Your task to perform on an android device: Search for "logitech g903" on ebay, select the first entry, and add it to the cart. Image 0: 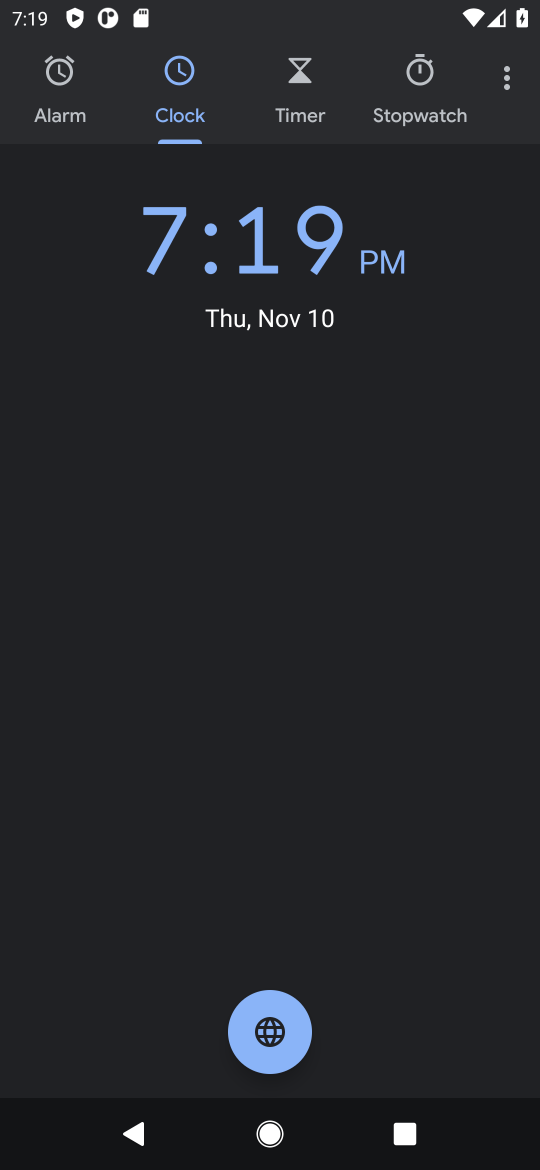
Step 0: press home button
Your task to perform on an android device: Search for "logitech g903" on ebay, select the first entry, and add it to the cart. Image 1: 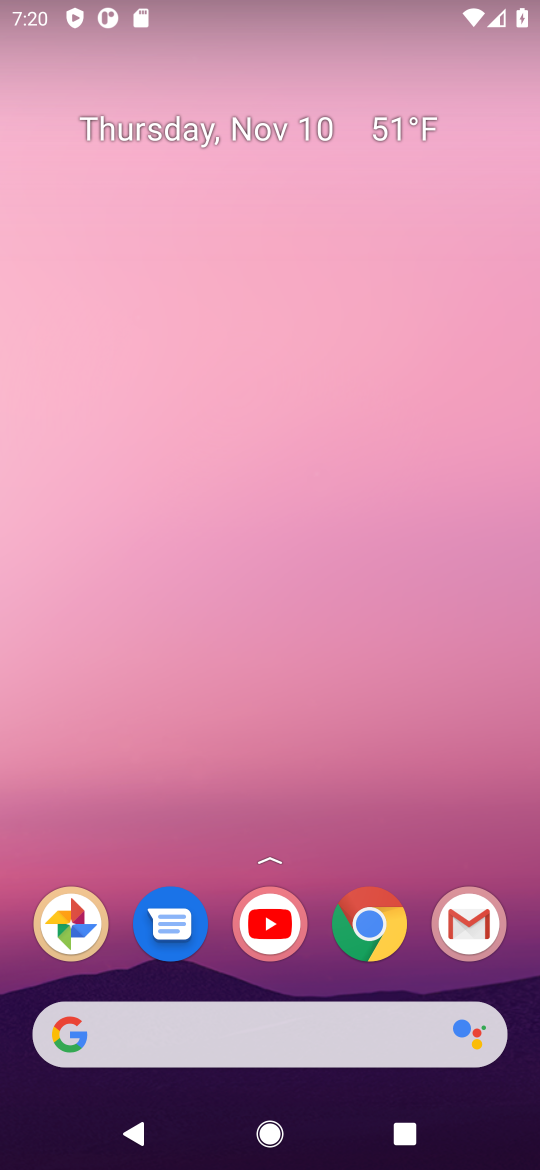
Step 1: click (380, 926)
Your task to perform on an android device: Search for "logitech g903" on ebay, select the first entry, and add it to the cart. Image 2: 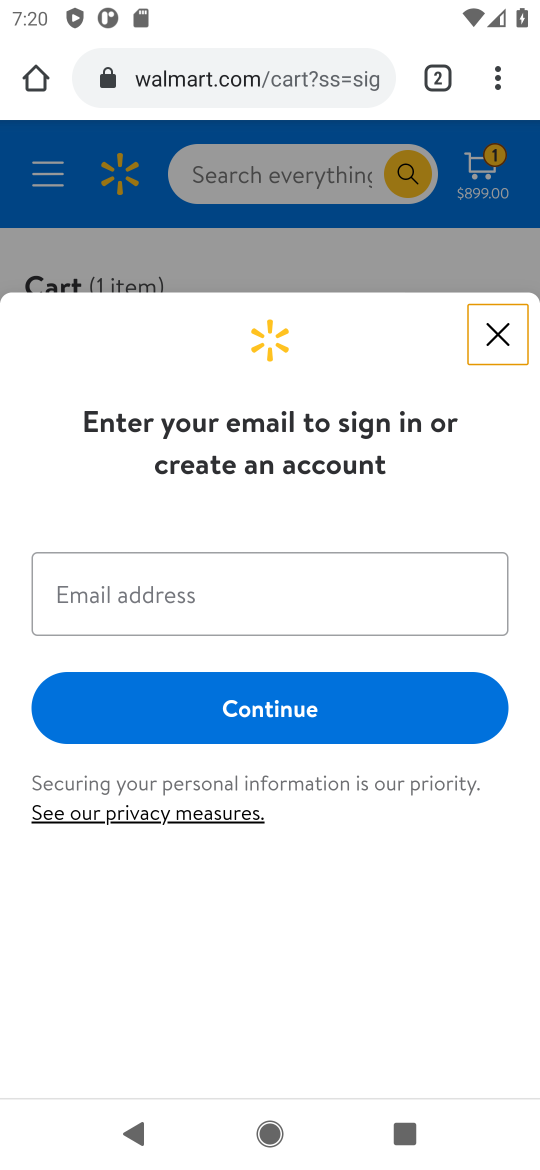
Step 2: click (187, 83)
Your task to perform on an android device: Search for "logitech g903" on ebay, select the first entry, and add it to the cart. Image 3: 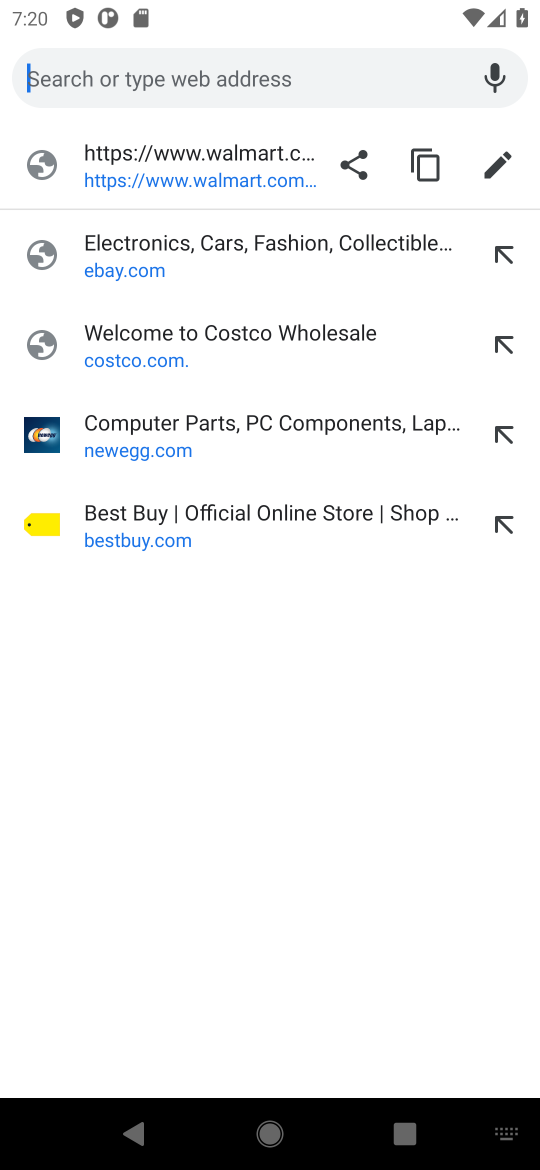
Step 3: click (131, 260)
Your task to perform on an android device: Search for "logitech g903" on ebay, select the first entry, and add it to the cart. Image 4: 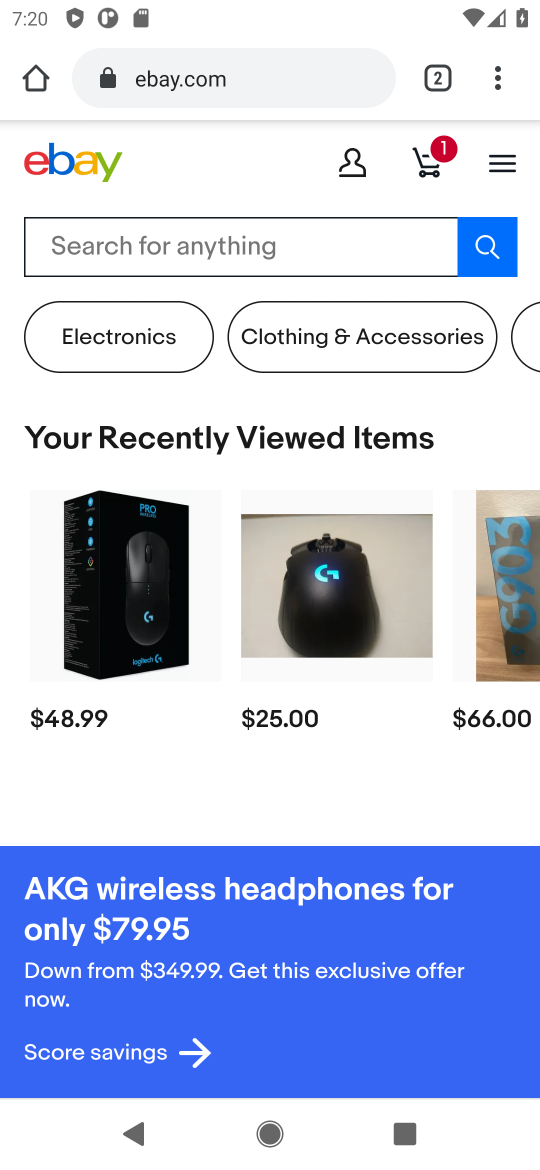
Step 4: click (61, 251)
Your task to perform on an android device: Search for "logitech g903" on ebay, select the first entry, and add it to the cart. Image 5: 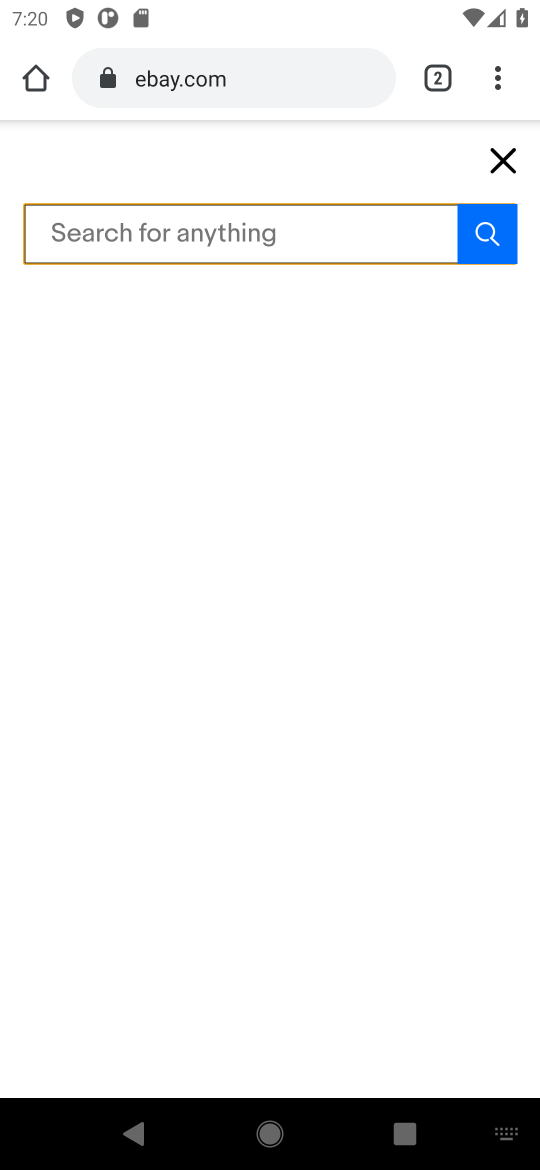
Step 5: type "logitech g903"
Your task to perform on an android device: Search for "logitech g903" on ebay, select the first entry, and add it to the cart. Image 6: 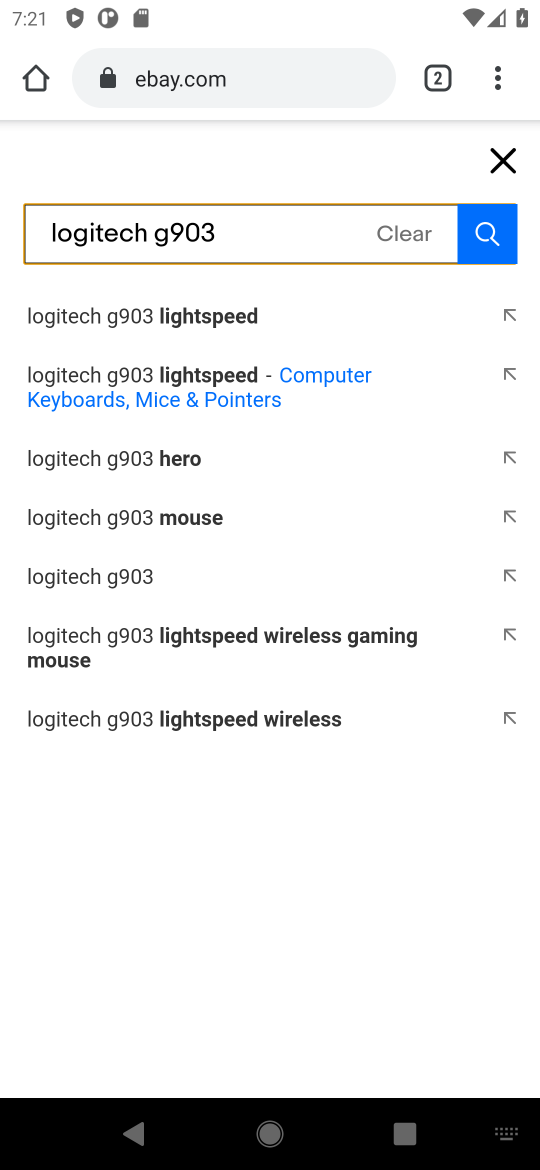
Step 6: click (92, 584)
Your task to perform on an android device: Search for "logitech g903" on ebay, select the first entry, and add it to the cart. Image 7: 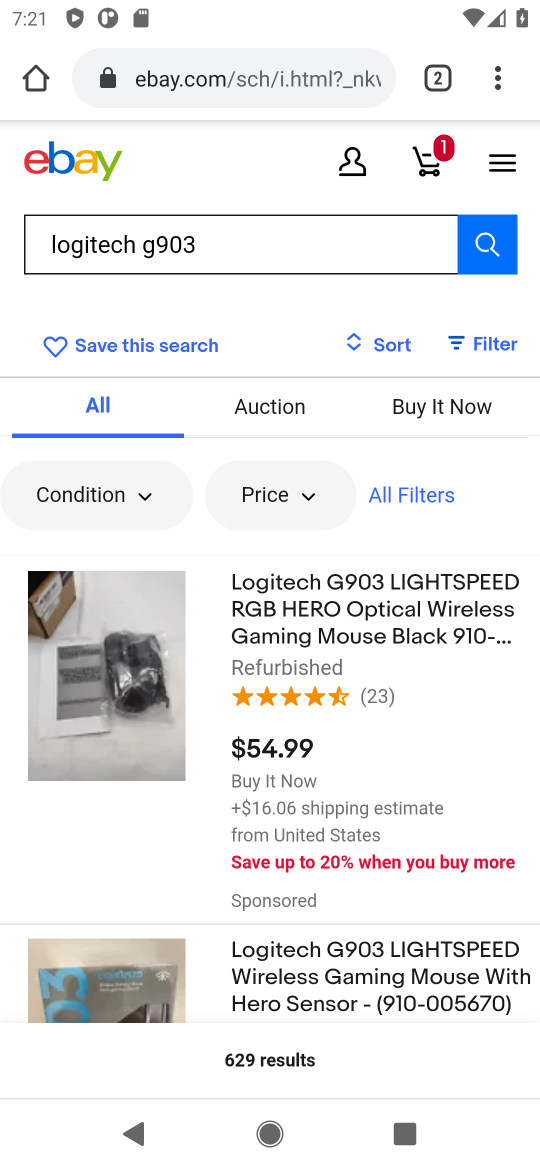
Step 7: click (119, 736)
Your task to perform on an android device: Search for "logitech g903" on ebay, select the first entry, and add it to the cart. Image 8: 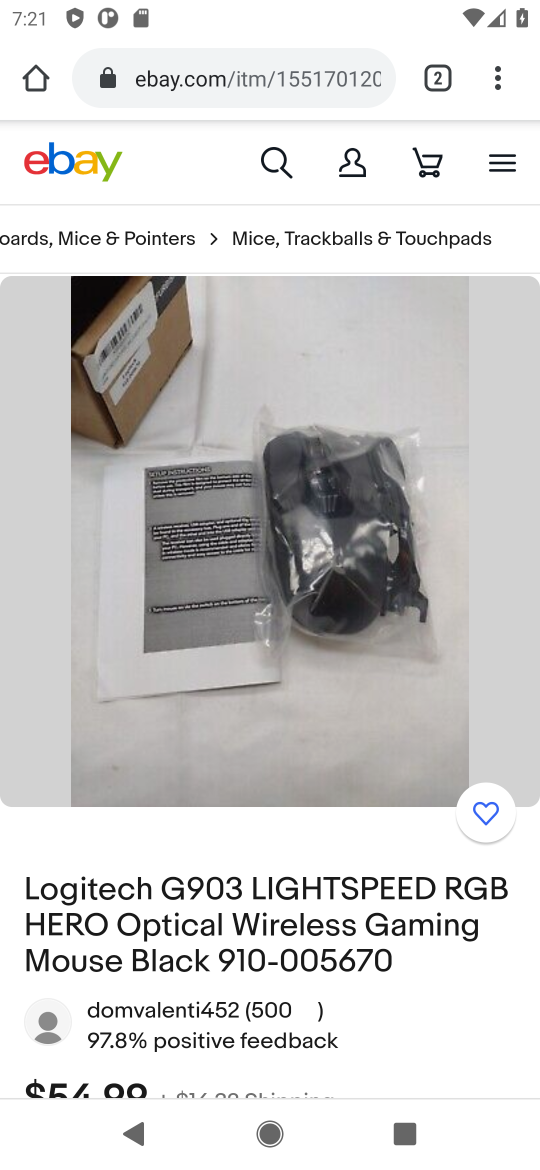
Step 8: drag from (191, 882) to (196, 309)
Your task to perform on an android device: Search for "logitech g903" on ebay, select the first entry, and add it to the cart. Image 9: 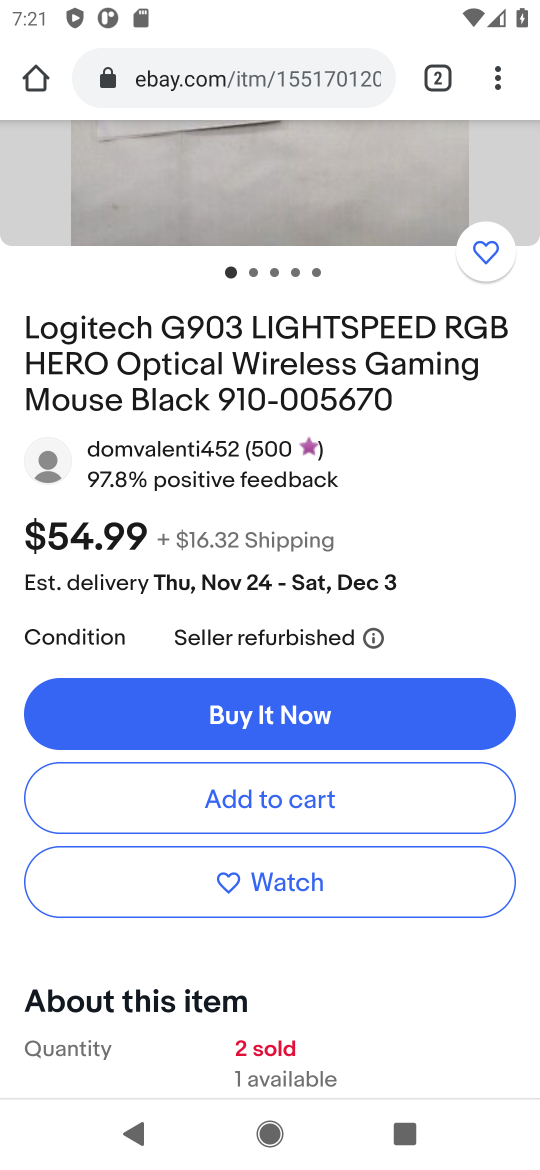
Step 9: click (271, 792)
Your task to perform on an android device: Search for "logitech g903" on ebay, select the first entry, and add it to the cart. Image 10: 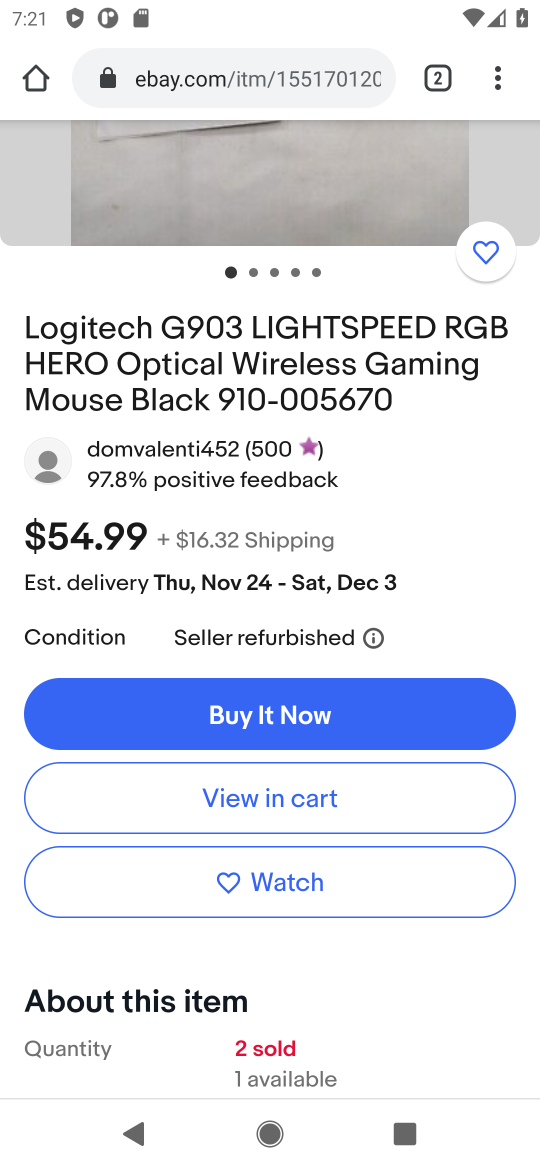
Step 10: task complete